Your task to perform on an android device: turn notification dots off Image 0: 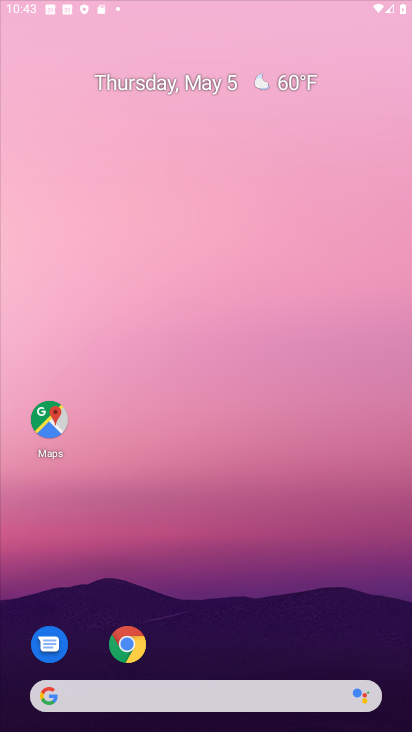
Step 0: drag from (247, 7) to (14, 172)
Your task to perform on an android device: turn notification dots off Image 1: 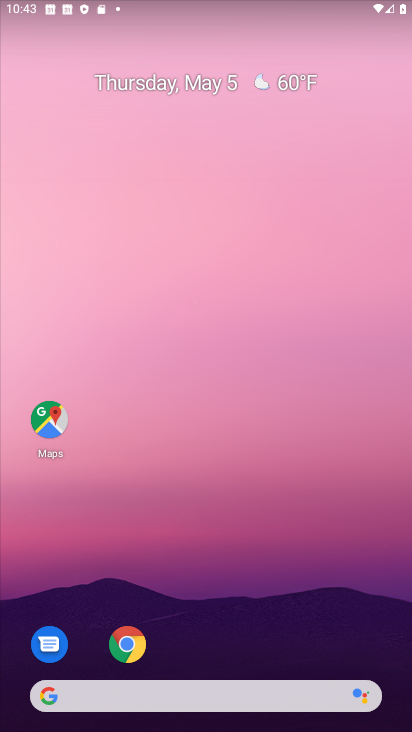
Step 1: drag from (195, 670) to (233, 228)
Your task to perform on an android device: turn notification dots off Image 2: 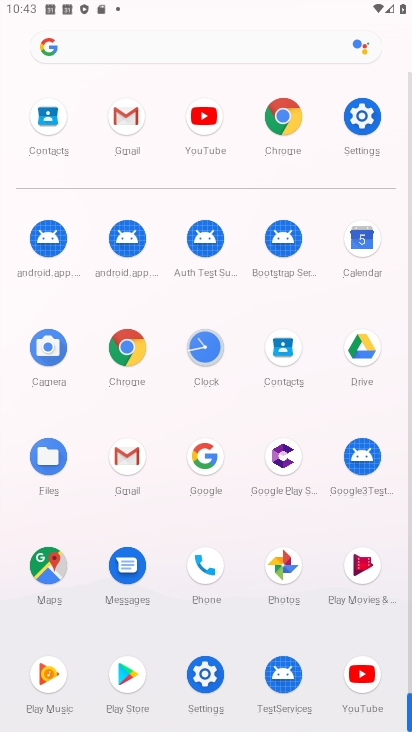
Step 2: drag from (245, 704) to (227, 189)
Your task to perform on an android device: turn notification dots off Image 3: 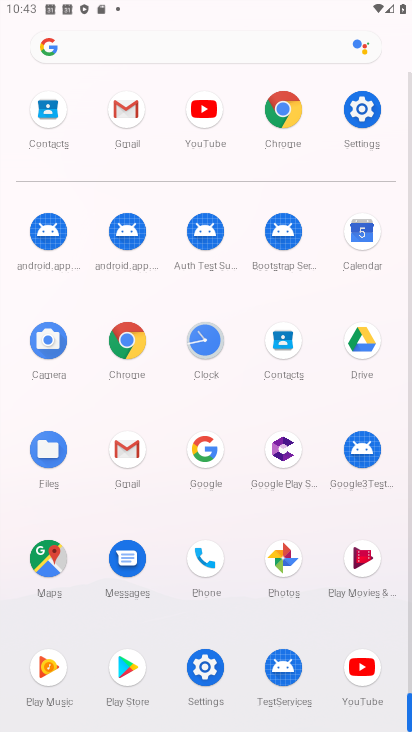
Step 3: click (202, 664)
Your task to perform on an android device: turn notification dots off Image 4: 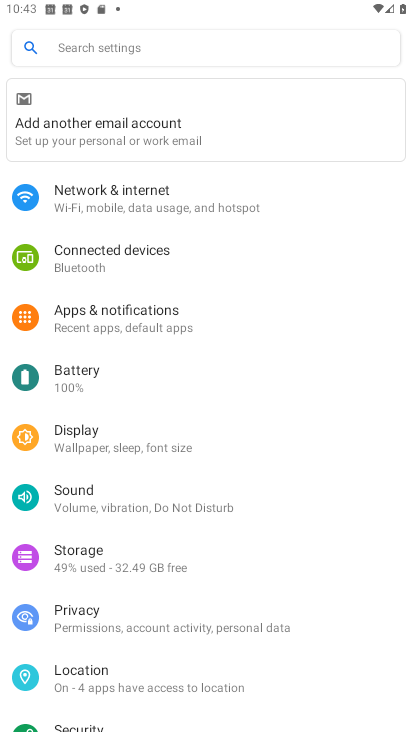
Step 4: click (144, 312)
Your task to perform on an android device: turn notification dots off Image 5: 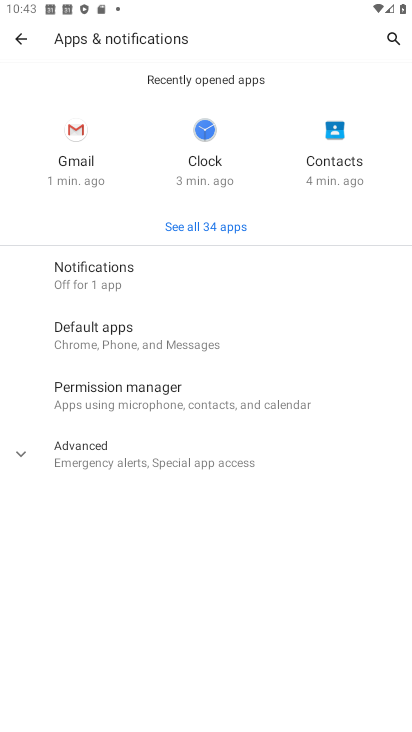
Step 5: click (143, 281)
Your task to perform on an android device: turn notification dots off Image 6: 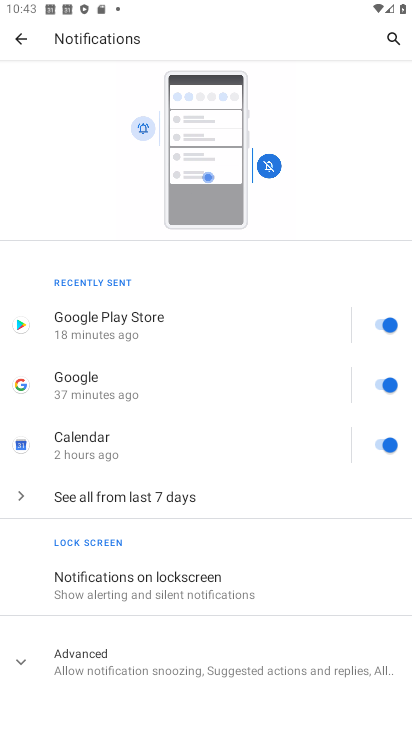
Step 6: drag from (211, 617) to (278, 233)
Your task to perform on an android device: turn notification dots off Image 7: 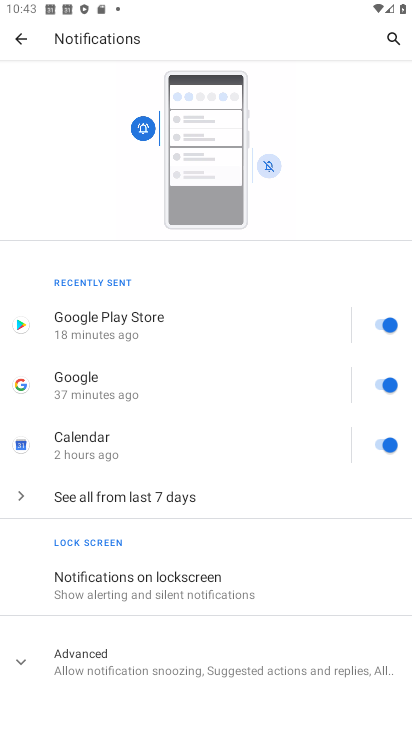
Step 7: click (140, 657)
Your task to perform on an android device: turn notification dots off Image 8: 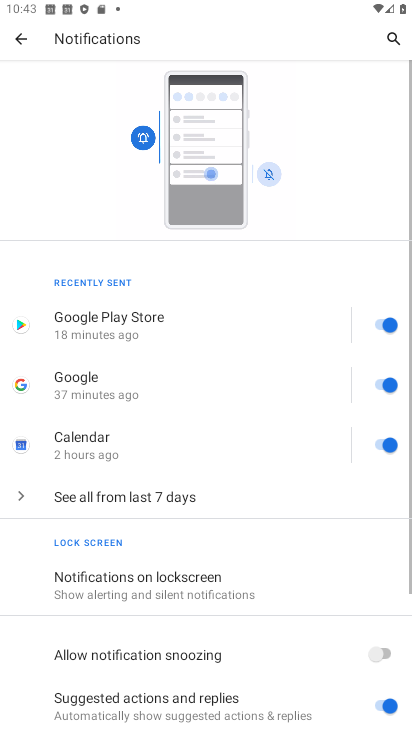
Step 8: task complete